Your task to perform on an android device: turn notification dots on Image 0: 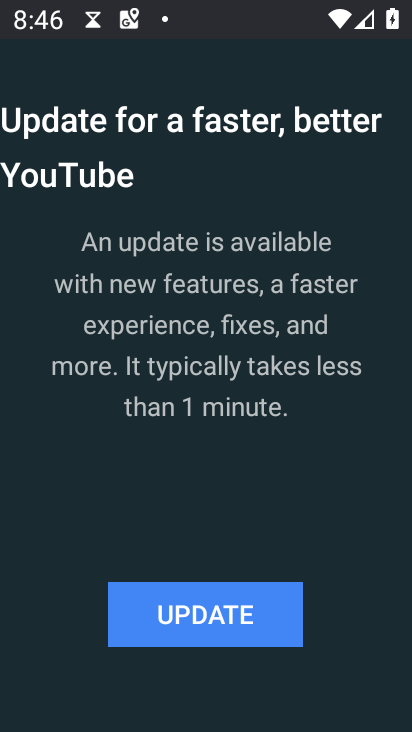
Step 0: press home button
Your task to perform on an android device: turn notification dots on Image 1: 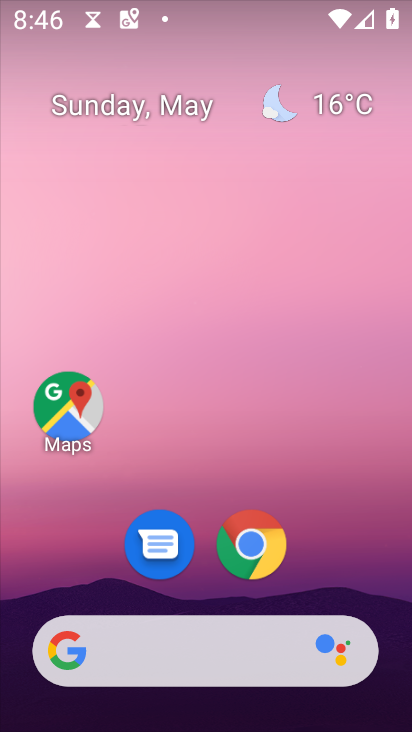
Step 1: drag from (290, 594) to (344, 18)
Your task to perform on an android device: turn notification dots on Image 2: 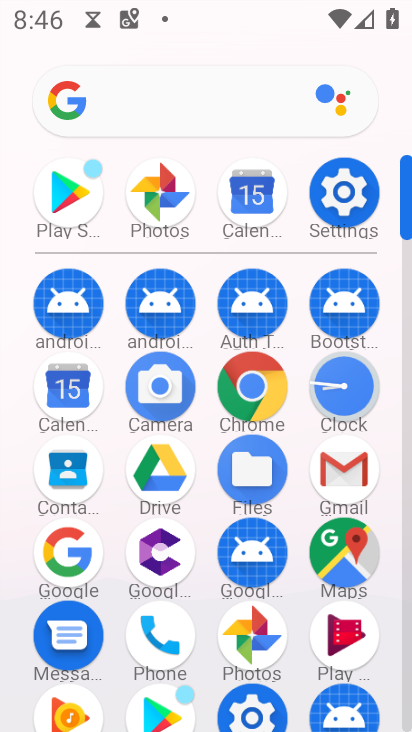
Step 2: click (337, 194)
Your task to perform on an android device: turn notification dots on Image 3: 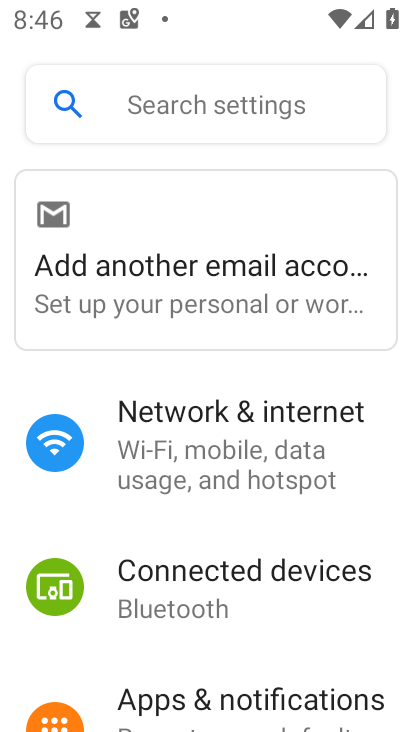
Step 3: click (174, 722)
Your task to perform on an android device: turn notification dots on Image 4: 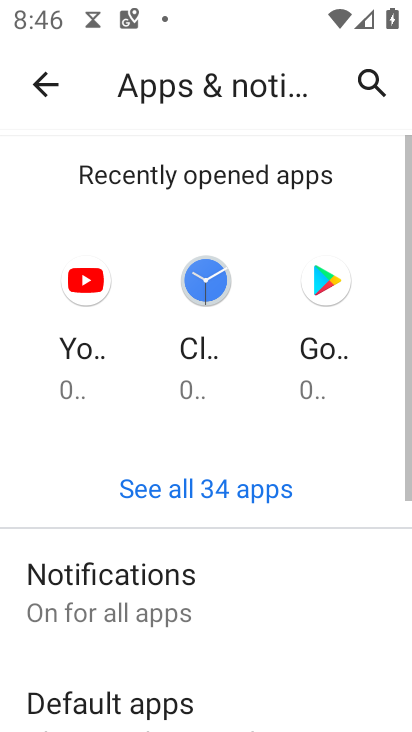
Step 4: drag from (147, 676) to (142, 158)
Your task to perform on an android device: turn notification dots on Image 5: 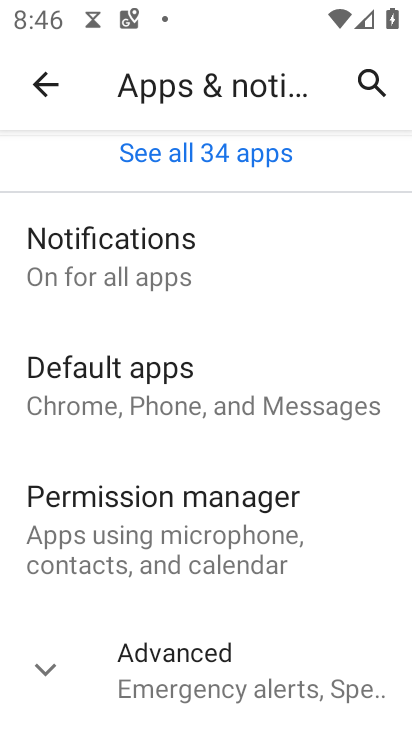
Step 5: click (160, 290)
Your task to perform on an android device: turn notification dots on Image 6: 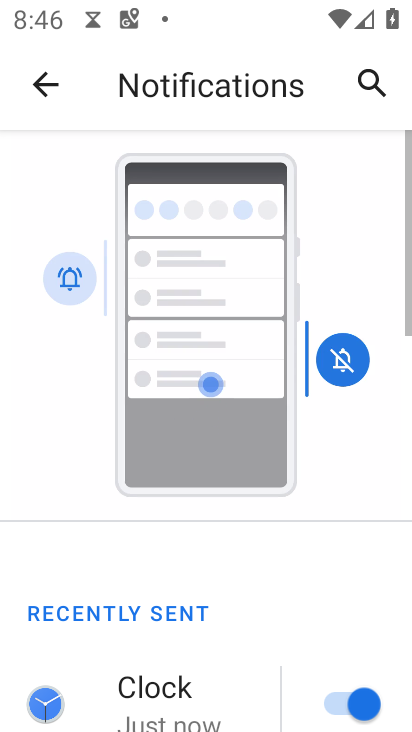
Step 6: drag from (275, 674) to (270, 217)
Your task to perform on an android device: turn notification dots on Image 7: 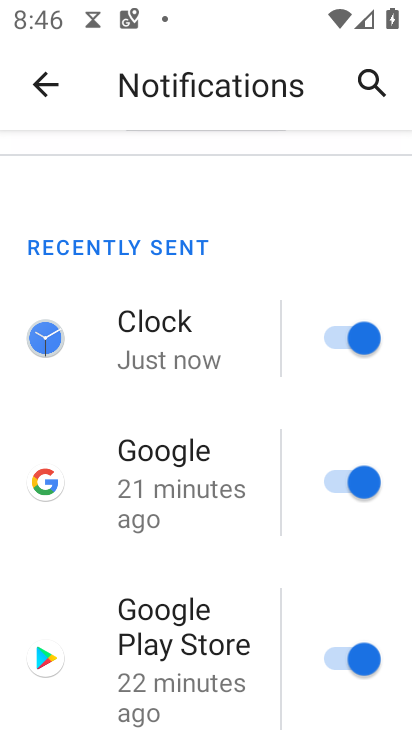
Step 7: drag from (184, 695) to (207, 175)
Your task to perform on an android device: turn notification dots on Image 8: 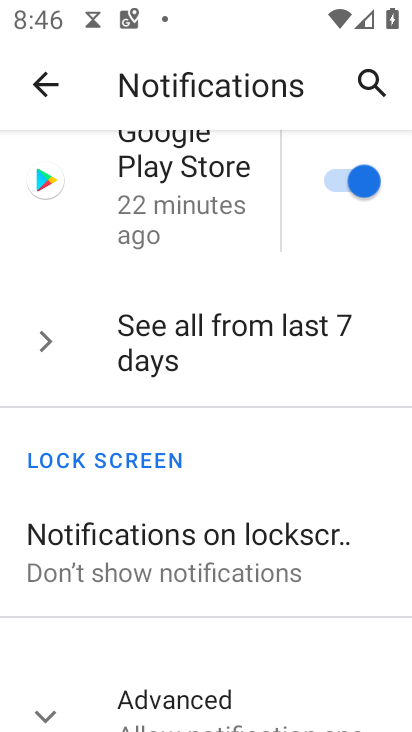
Step 8: drag from (163, 629) to (181, 221)
Your task to perform on an android device: turn notification dots on Image 9: 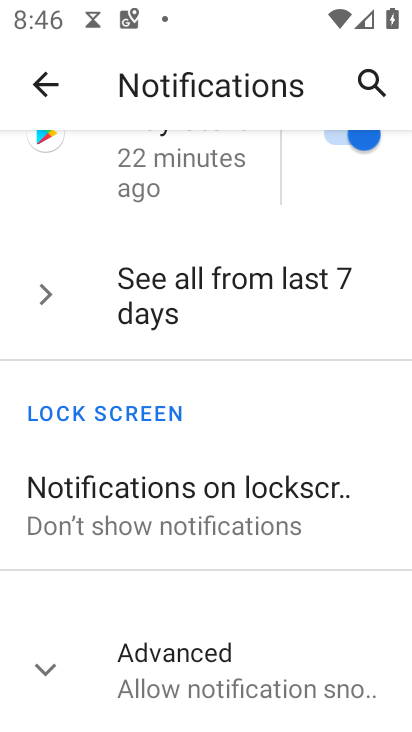
Step 9: click (157, 689)
Your task to perform on an android device: turn notification dots on Image 10: 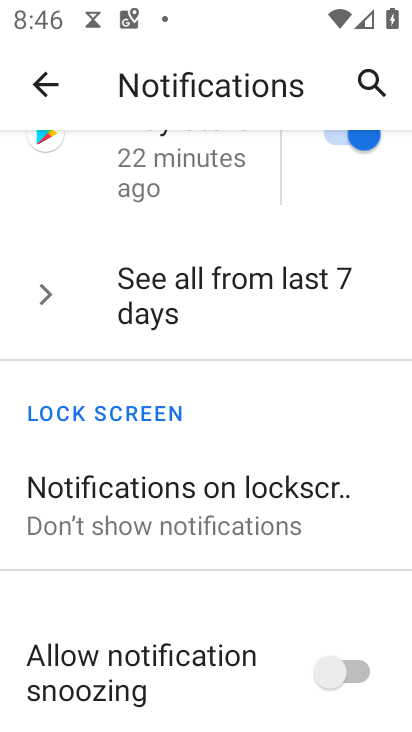
Step 10: task complete